Your task to perform on an android device: Open internet settings Image 0: 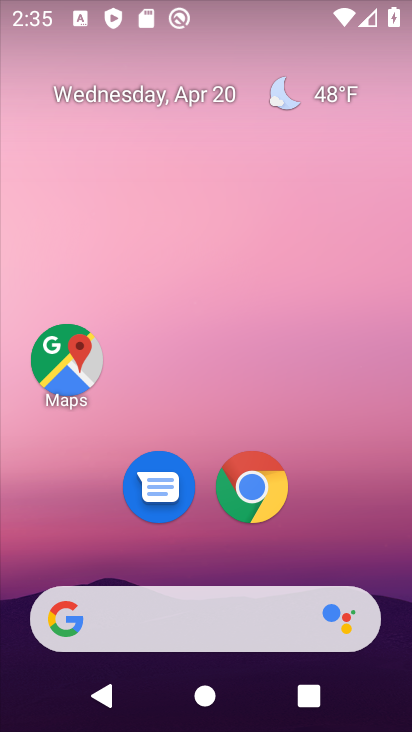
Step 0: drag from (156, 515) to (195, 283)
Your task to perform on an android device: Open internet settings Image 1: 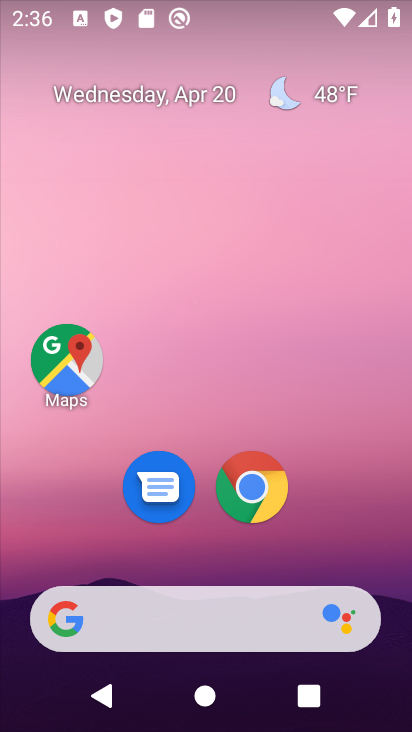
Step 1: drag from (195, 580) to (253, 135)
Your task to perform on an android device: Open internet settings Image 2: 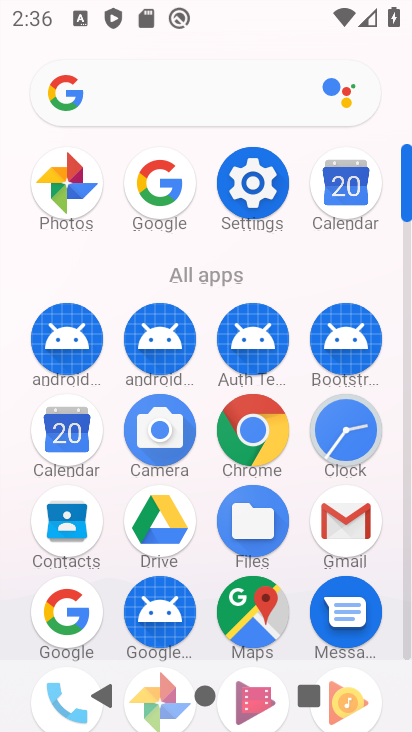
Step 2: click (263, 183)
Your task to perform on an android device: Open internet settings Image 3: 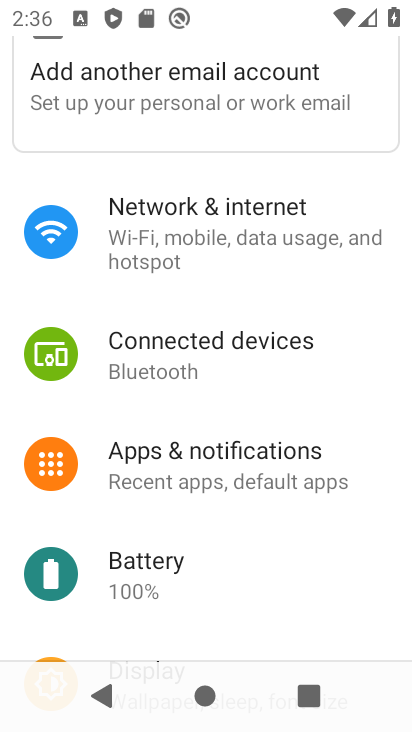
Step 3: click (209, 238)
Your task to perform on an android device: Open internet settings Image 4: 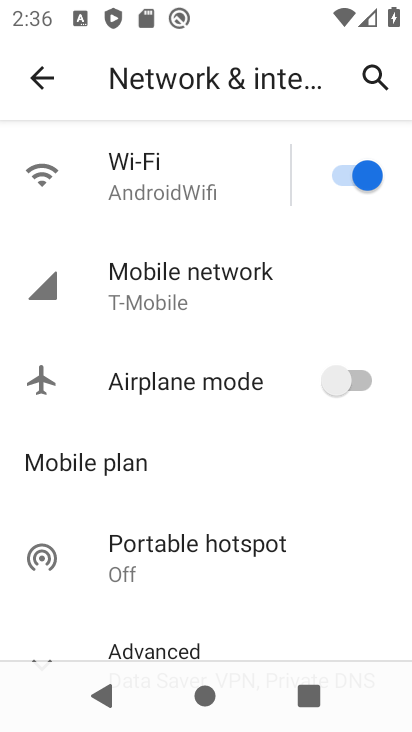
Step 4: drag from (204, 486) to (241, 212)
Your task to perform on an android device: Open internet settings Image 5: 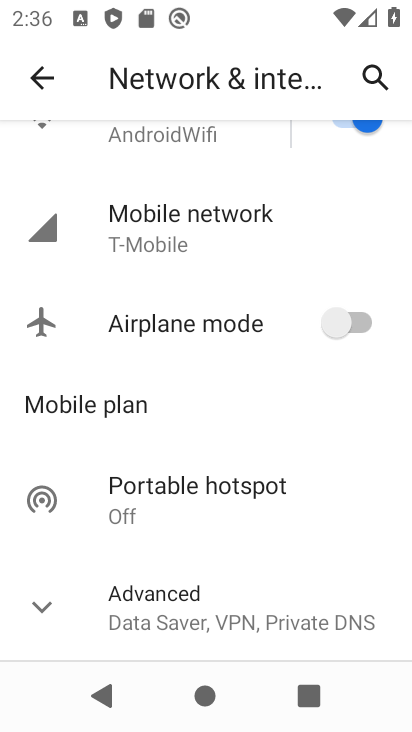
Step 5: click (176, 616)
Your task to perform on an android device: Open internet settings Image 6: 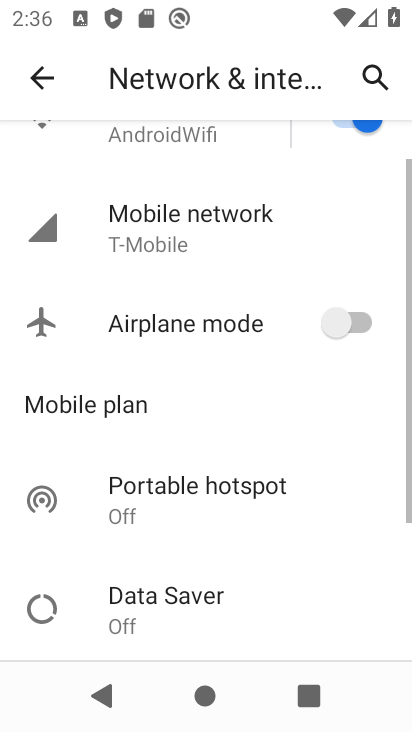
Step 6: task complete